Your task to perform on an android device: Turn on the flashlight Image 0: 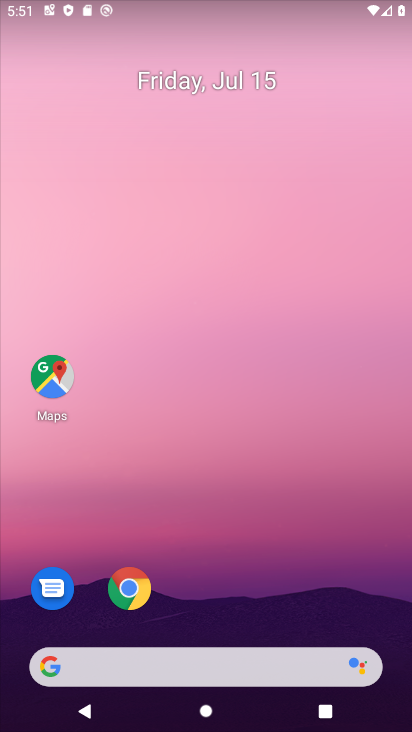
Step 0: drag from (183, 85) to (171, 669)
Your task to perform on an android device: Turn on the flashlight Image 1: 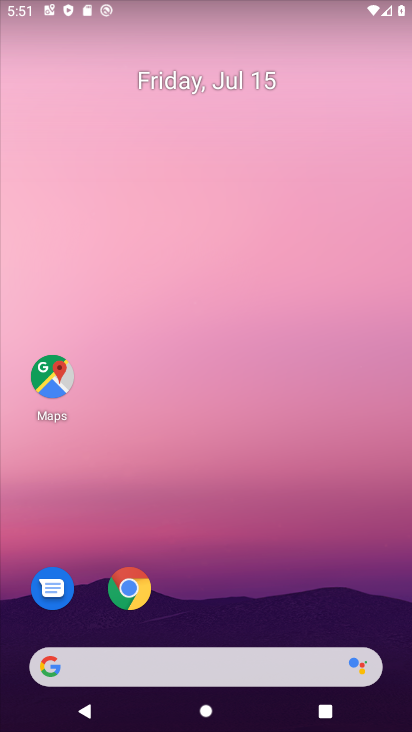
Step 1: click (188, 380)
Your task to perform on an android device: Turn on the flashlight Image 2: 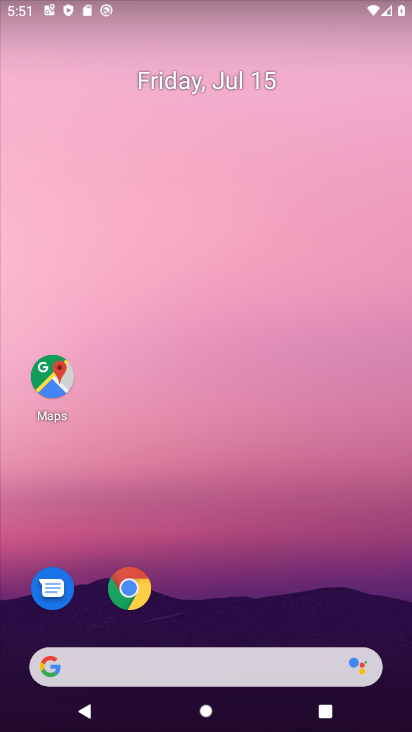
Step 2: task complete